Your task to perform on an android device: Open Google Image 0: 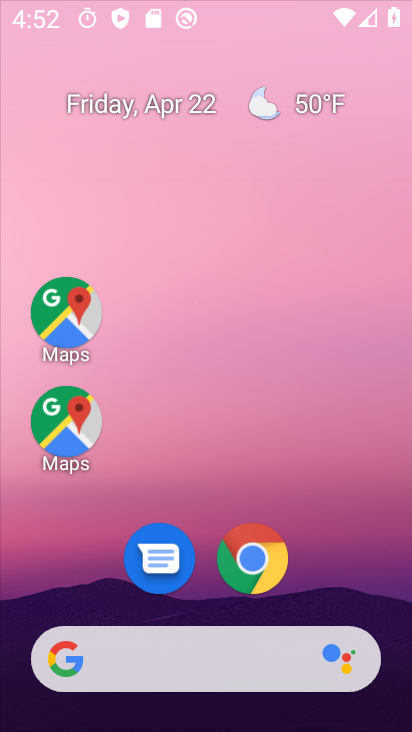
Step 0: drag from (295, 597) to (253, 206)
Your task to perform on an android device: Open Google Image 1: 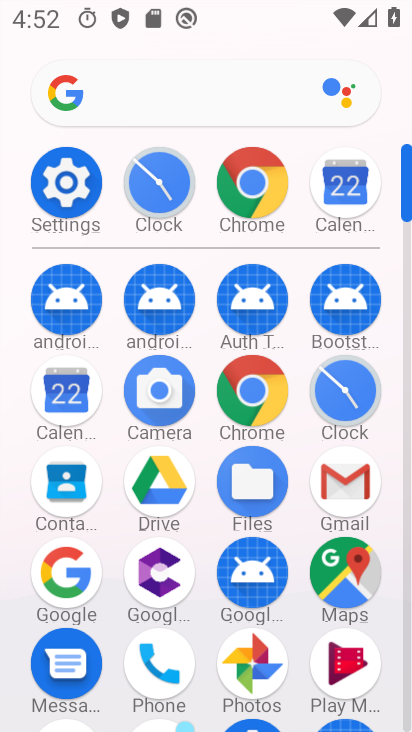
Step 1: click (60, 562)
Your task to perform on an android device: Open Google Image 2: 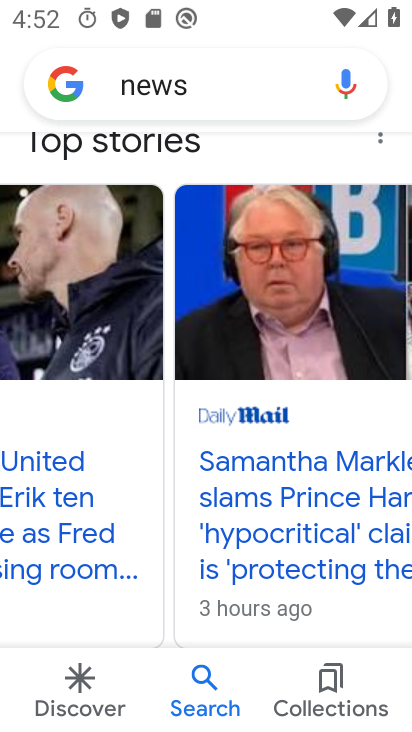
Step 2: task complete